Your task to perform on an android device: Turn off the flashlight Image 0: 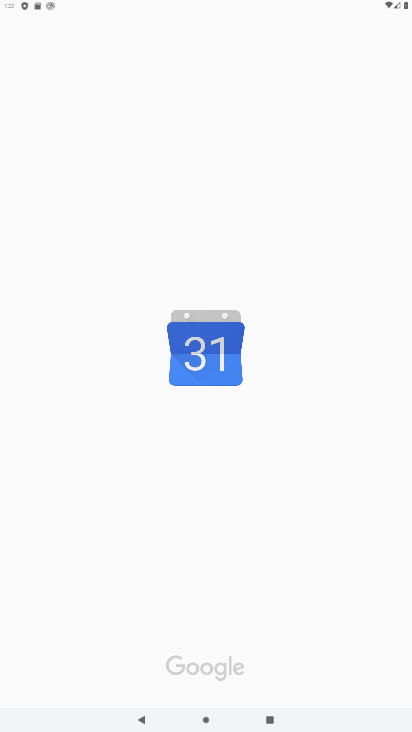
Step 0: click (387, 3)
Your task to perform on an android device: Turn off the flashlight Image 1: 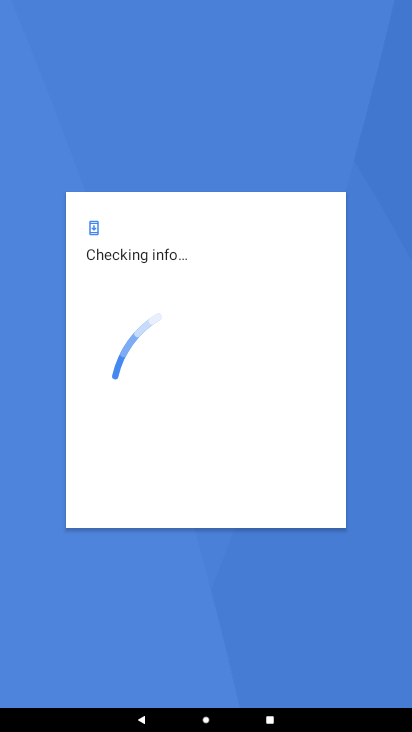
Step 1: task complete